Your task to perform on an android device: Open Android settings Image 0: 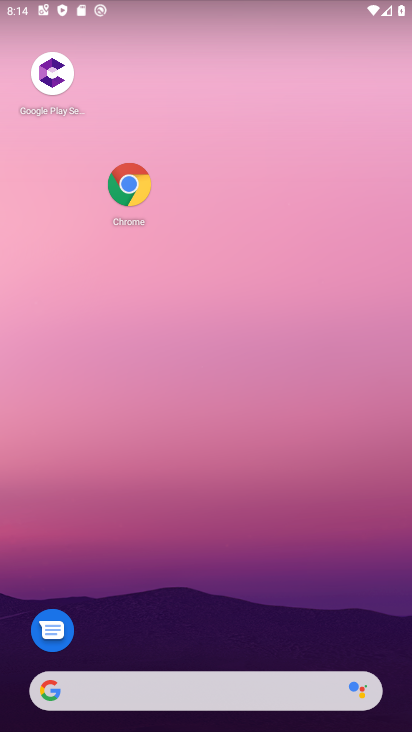
Step 0: drag from (221, 558) to (405, 151)
Your task to perform on an android device: Open Android settings Image 1: 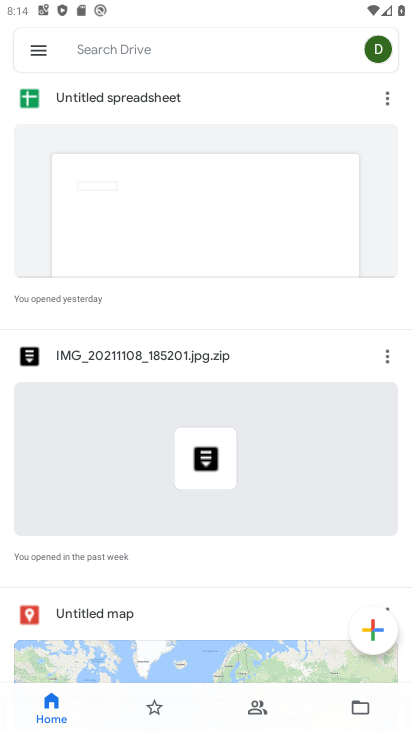
Step 1: click (183, 667)
Your task to perform on an android device: Open Android settings Image 2: 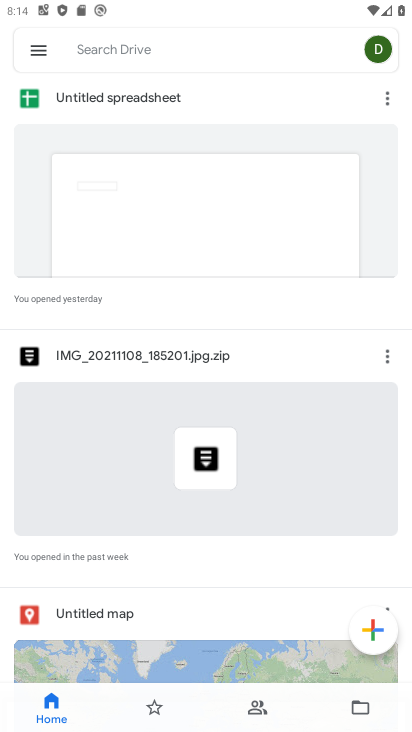
Step 2: drag from (210, 510) to (219, 88)
Your task to perform on an android device: Open Android settings Image 3: 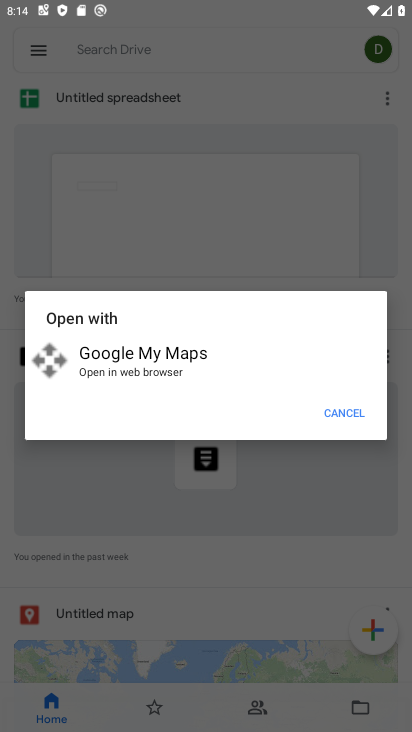
Step 3: press back button
Your task to perform on an android device: Open Android settings Image 4: 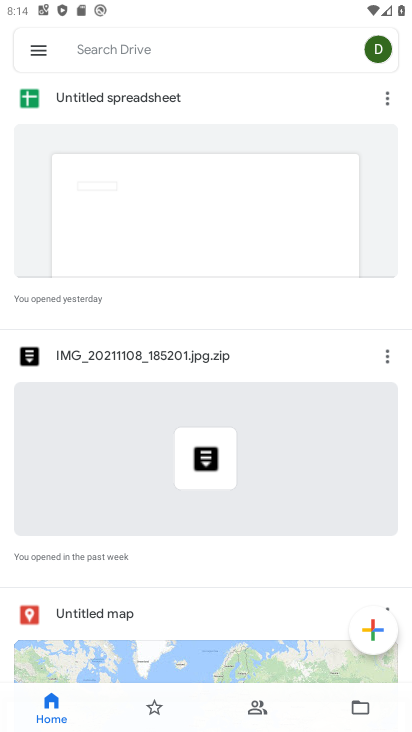
Step 4: press home button
Your task to perform on an android device: Open Android settings Image 5: 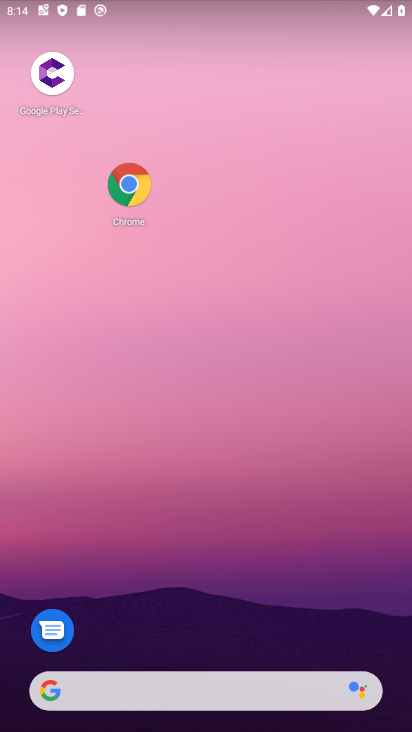
Step 5: drag from (176, 672) to (192, 224)
Your task to perform on an android device: Open Android settings Image 6: 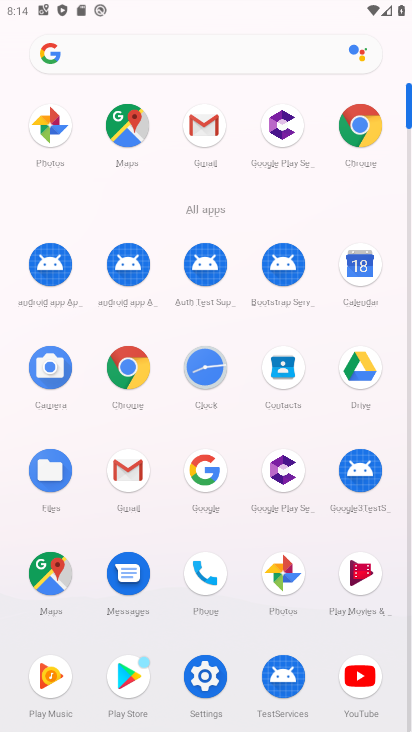
Step 6: click (131, 130)
Your task to perform on an android device: Open Android settings Image 7: 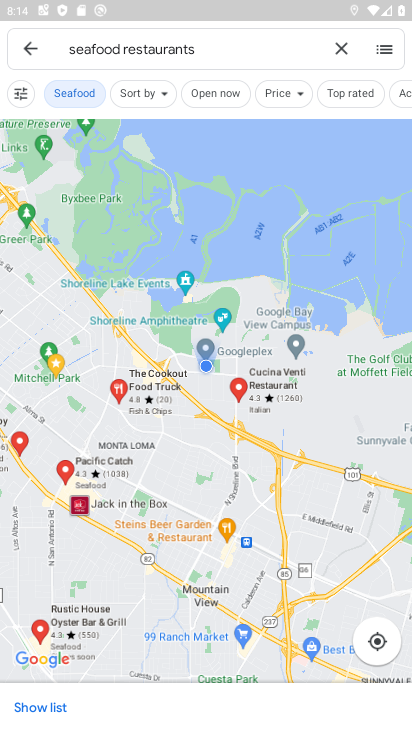
Step 7: click (347, 46)
Your task to perform on an android device: Open Android settings Image 8: 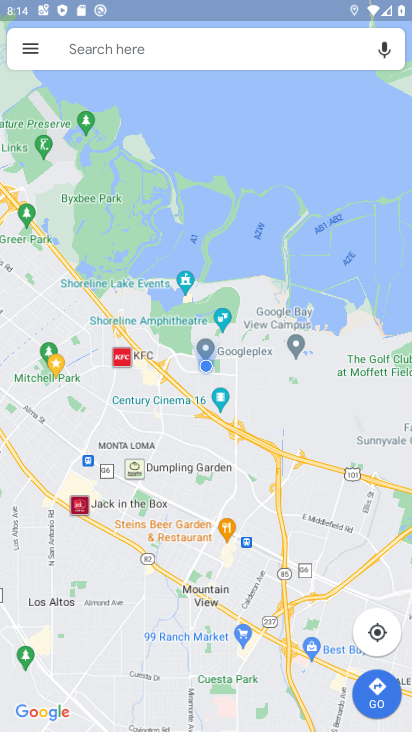
Step 8: press back button
Your task to perform on an android device: Open Android settings Image 9: 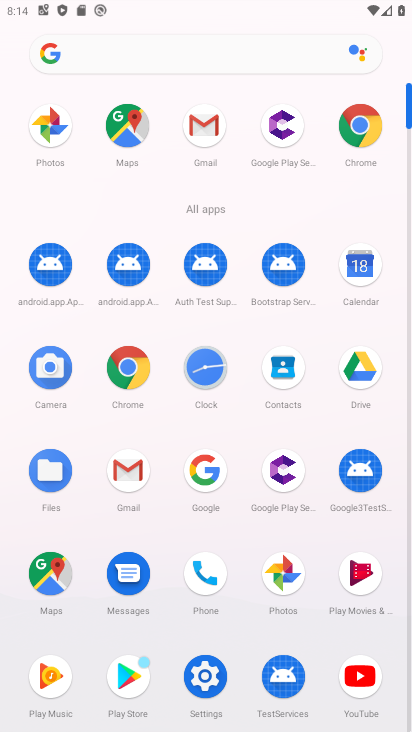
Step 9: click (208, 675)
Your task to perform on an android device: Open Android settings Image 10: 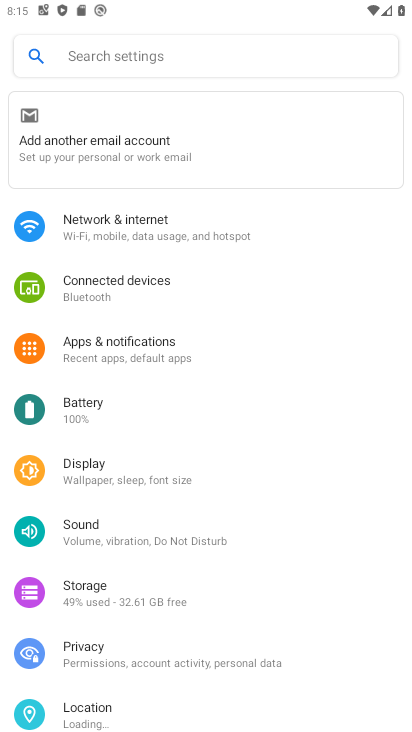
Step 10: task complete